Your task to perform on an android device: change the clock style Image 0: 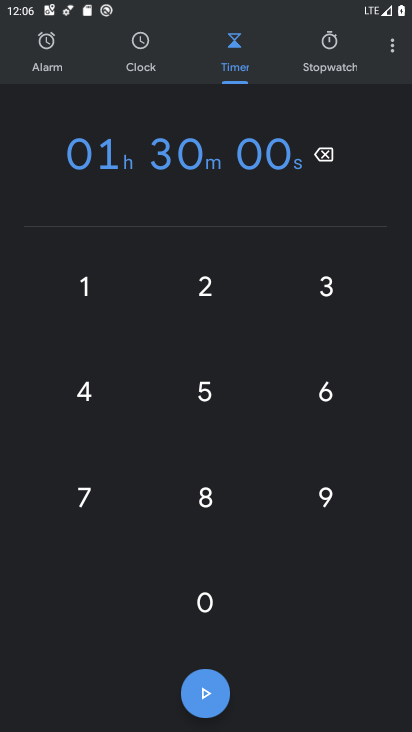
Step 0: click (391, 54)
Your task to perform on an android device: change the clock style Image 1: 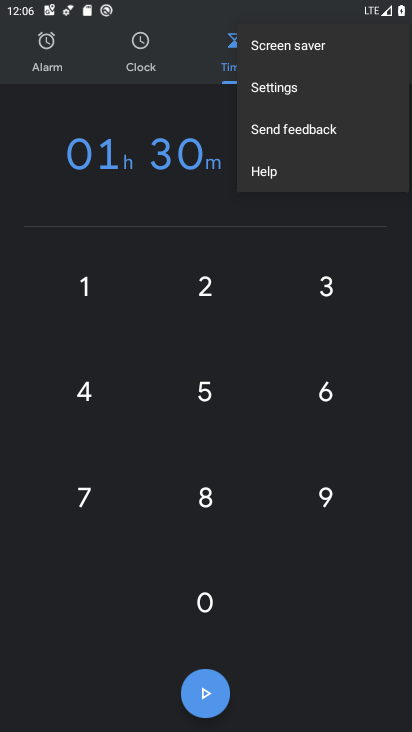
Step 1: click (277, 92)
Your task to perform on an android device: change the clock style Image 2: 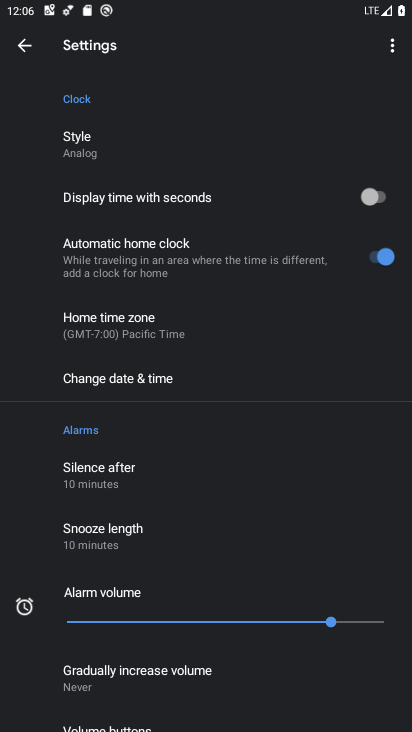
Step 2: click (82, 141)
Your task to perform on an android device: change the clock style Image 3: 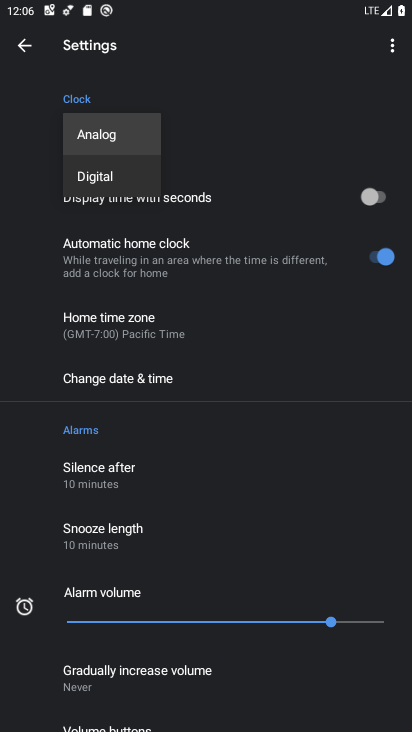
Step 3: click (93, 174)
Your task to perform on an android device: change the clock style Image 4: 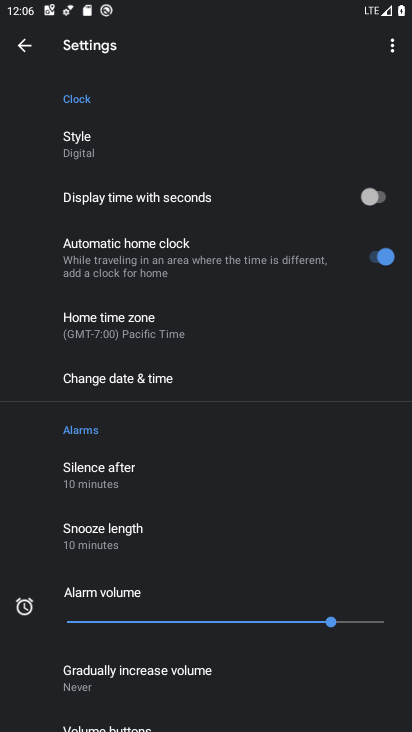
Step 4: task complete